Your task to perform on an android device: empty trash in google photos Image 0: 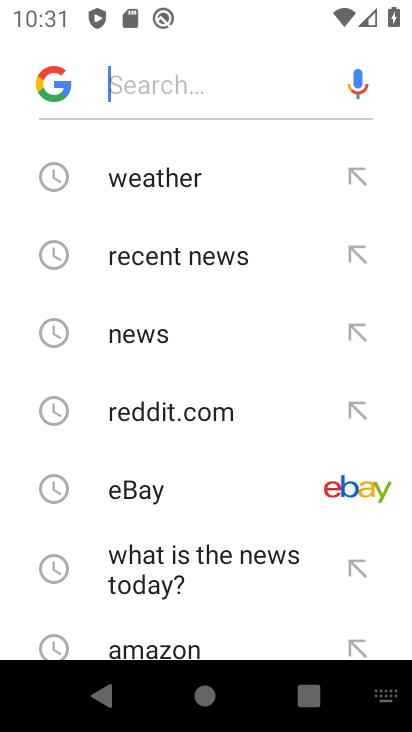
Step 0: press home button
Your task to perform on an android device: empty trash in google photos Image 1: 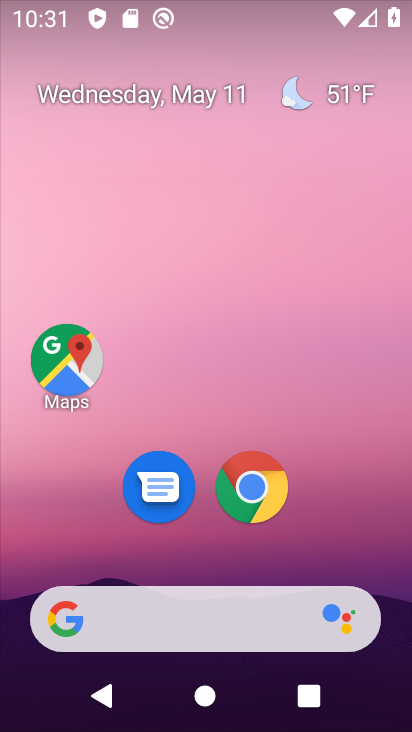
Step 1: drag from (275, 562) to (277, 87)
Your task to perform on an android device: empty trash in google photos Image 2: 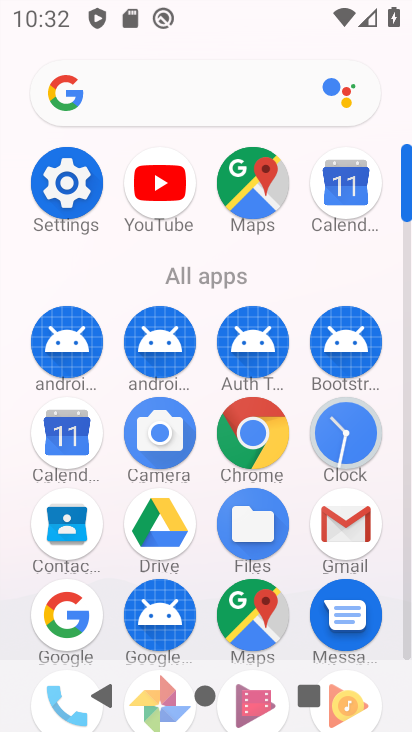
Step 2: drag from (305, 547) to (301, 204)
Your task to perform on an android device: empty trash in google photos Image 3: 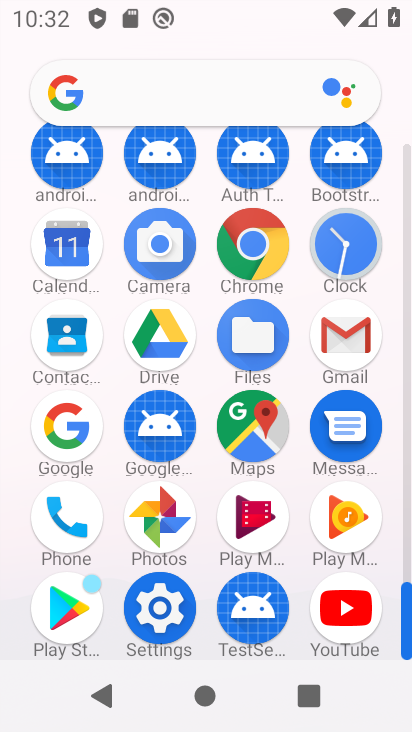
Step 3: click (166, 479)
Your task to perform on an android device: empty trash in google photos Image 4: 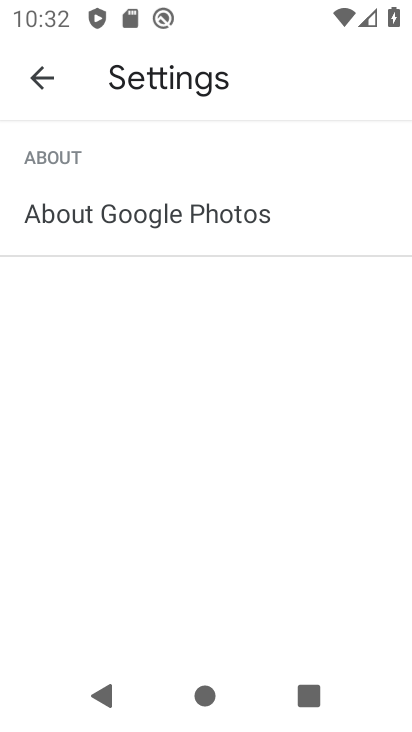
Step 4: press back button
Your task to perform on an android device: empty trash in google photos Image 5: 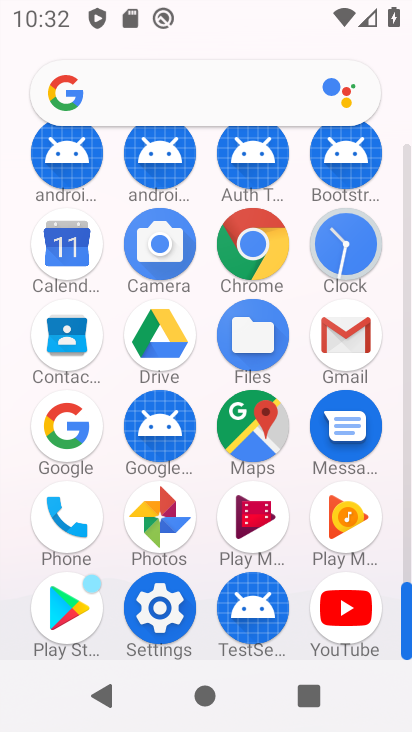
Step 5: click (140, 513)
Your task to perform on an android device: empty trash in google photos Image 6: 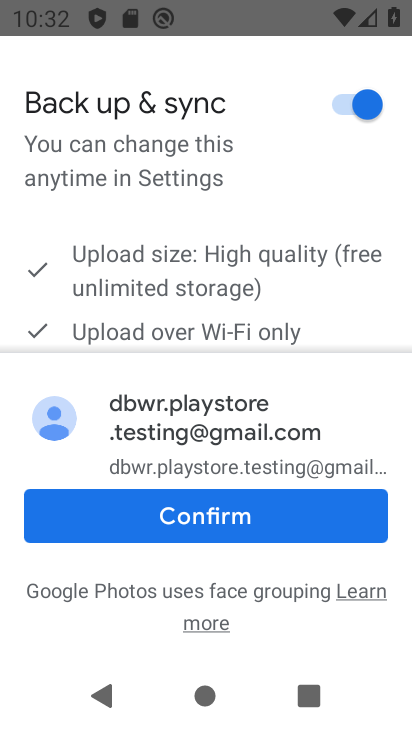
Step 6: click (233, 542)
Your task to perform on an android device: empty trash in google photos Image 7: 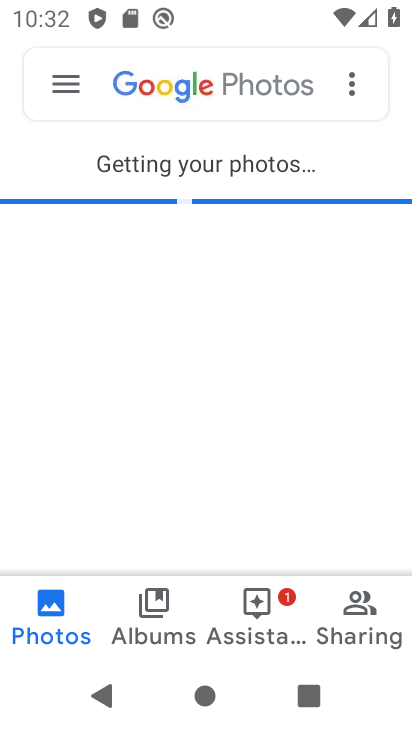
Step 7: click (75, 95)
Your task to perform on an android device: empty trash in google photos Image 8: 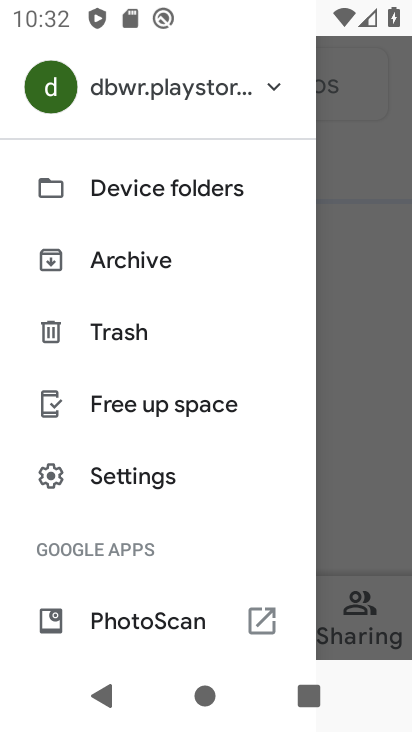
Step 8: click (118, 337)
Your task to perform on an android device: empty trash in google photos Image 9: 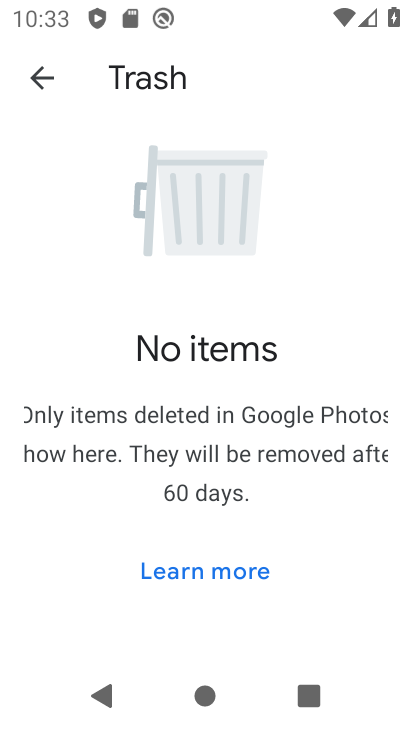
Step 9: task complete